Your task to perform on an android device: remove spam from my inbox in the gmail app Image 0: 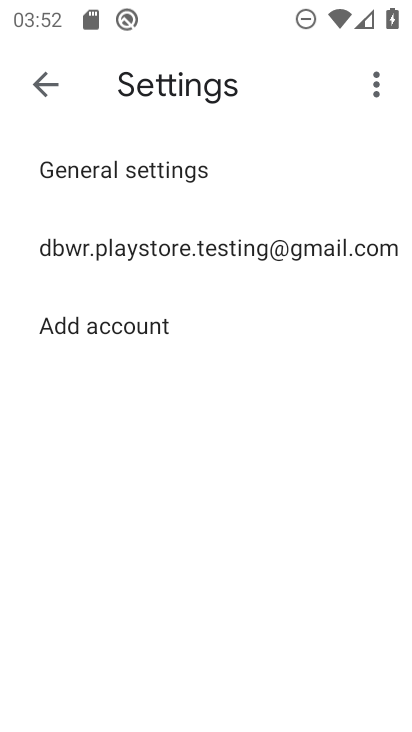
Step 0: press home button
Your task to perform on an android device: remove spam from my inbox in the gmail app Image 1: 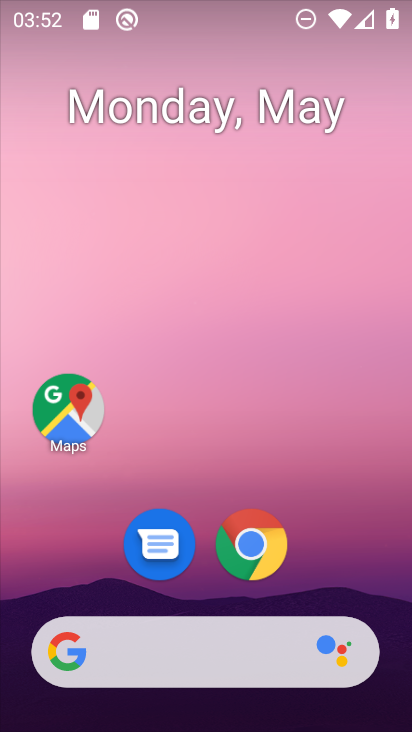
Step 1: drag from (387, 567) to (395, 243)
Your task to perform on an android device: remove spam from my inbox in the gmail app Image 2: 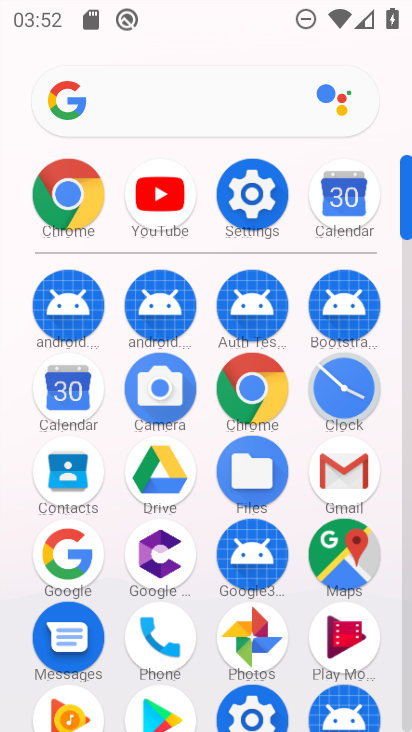
Step 2: click (359, 484)
Your task to perform on an android device: remove spam from my inbox in the gmail app Image 3: 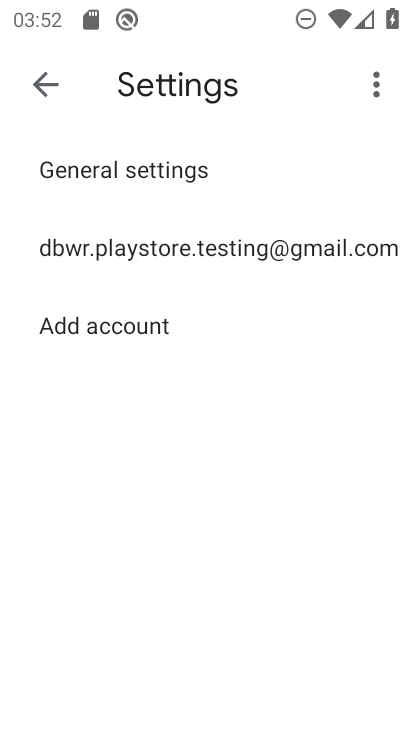
Step 3: click (54, 104)
Your task to perform on an android device: remove spam from my inbox in the gmail app Image 4: 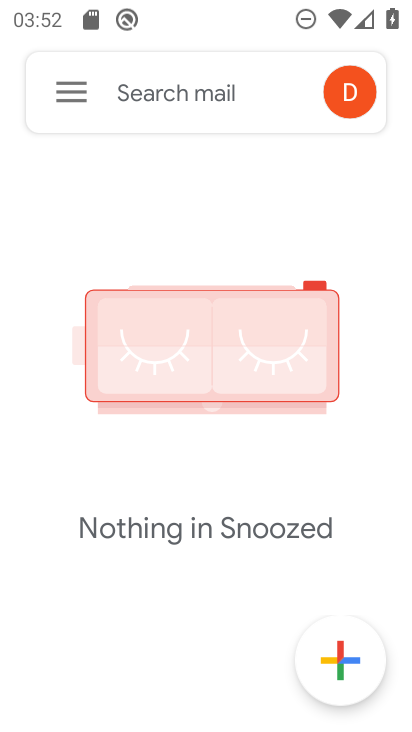
Step 4: click (70, 110)
Your task to perform on an android device: remove spam from my inbox in the gmail app Image 5: 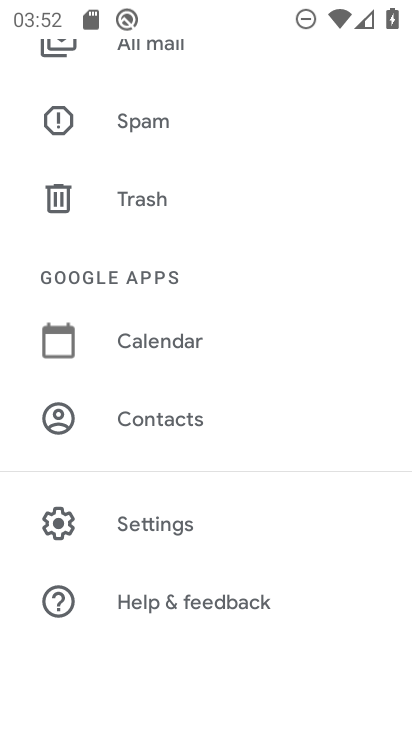
Step 5: drag from (272, 306) to (276, 448)
Your task to perform on an android device: remove spam from my inbox in the gmail app Image 6: 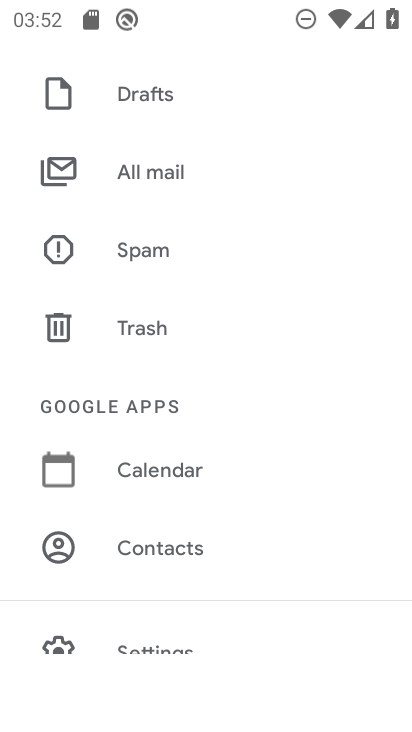
Step 6: drag from (239, 184) to (245, 344)
Your task to perform on an android device: remove spam from my inbox in the gmail app Image 7: 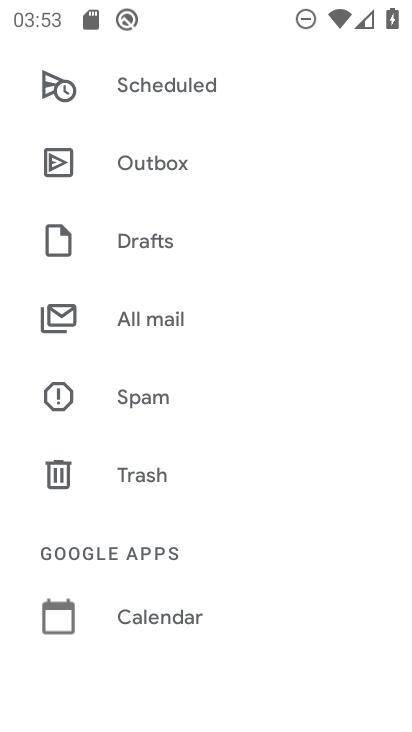
Step 7: drag from (238, 140) to (246, 250)
Your task to perform on an android device: remove spam from my inbox in the gmail app Image 8: 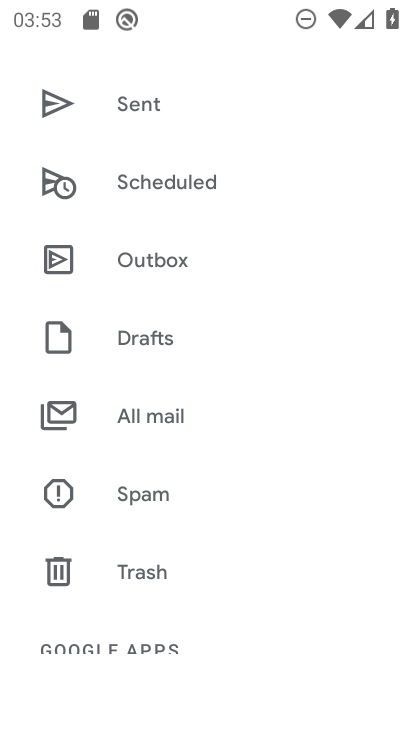
Step 8: click (185, 500)
Your task to perform on an android device: remove spam from my inbox in the gmail app Image 9: 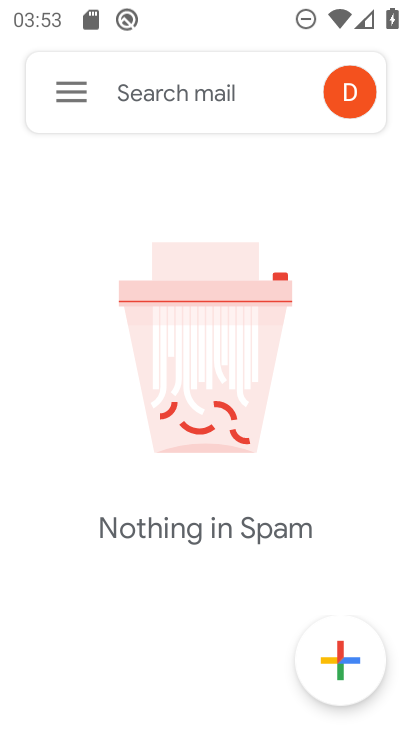
Step 9: task complete